Your task to perform on an android device: Go to battery settings Image 0: 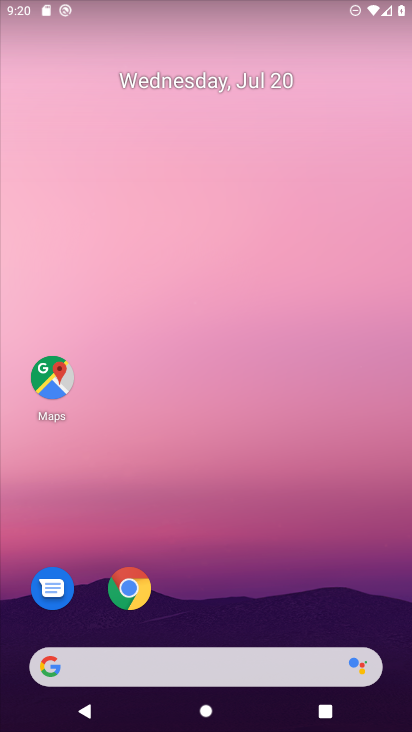
Step 0: drag from (214, 9) to (249, 562)
Your task to perform on an android device: Go to battery settings Image 1: 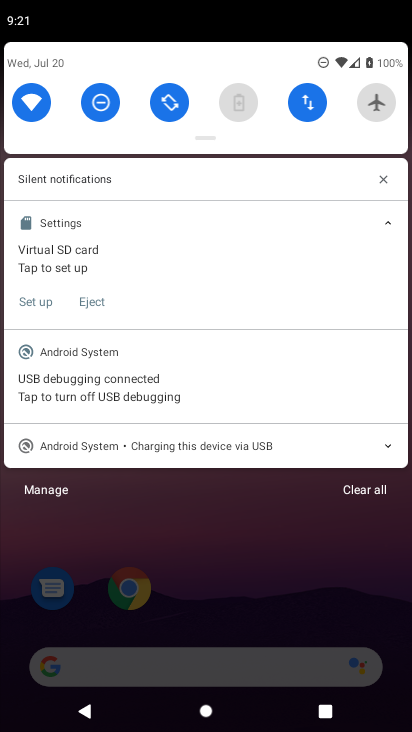
Step 1: task complete